Your task to perform on an android device: toggle notification dots Image 0: 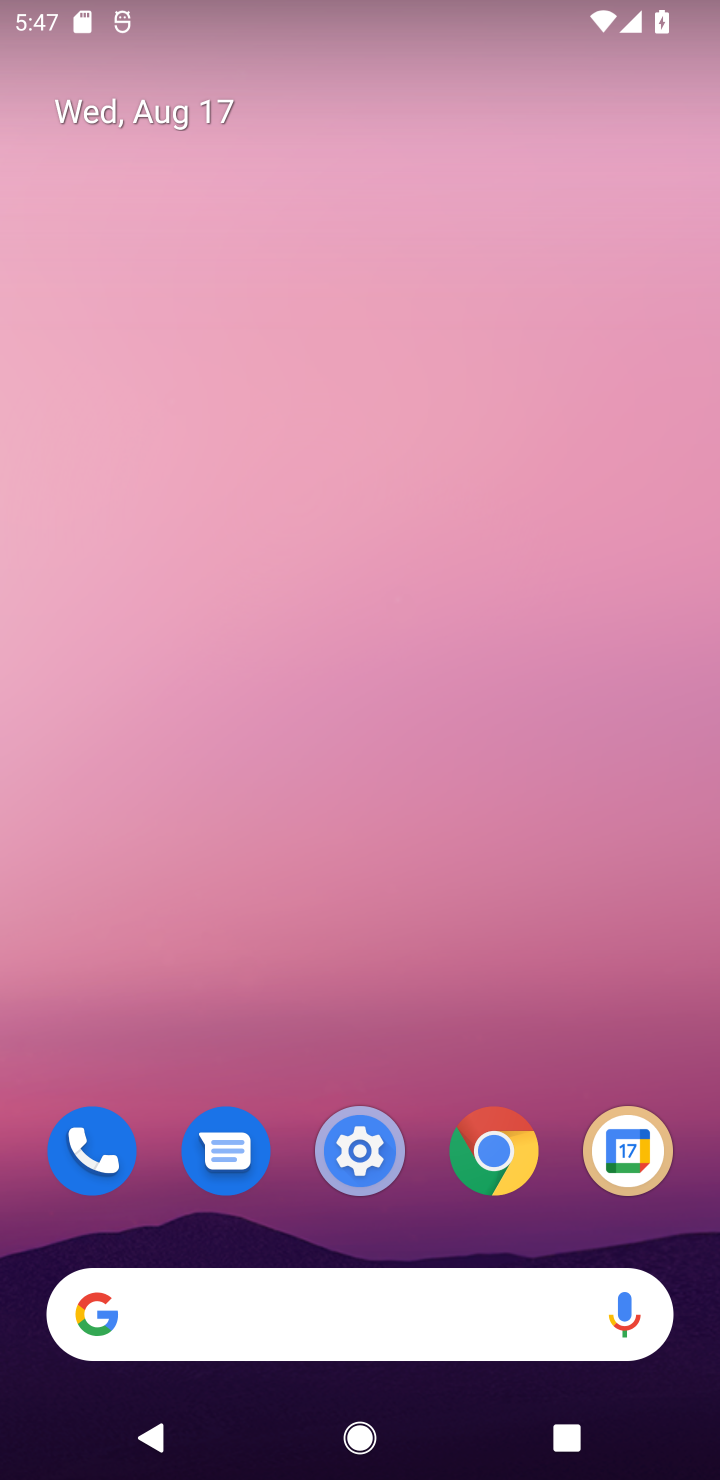
Step 0: click (375, 1154)
Your task to perform on an android device: toggle notification dots Image 1: 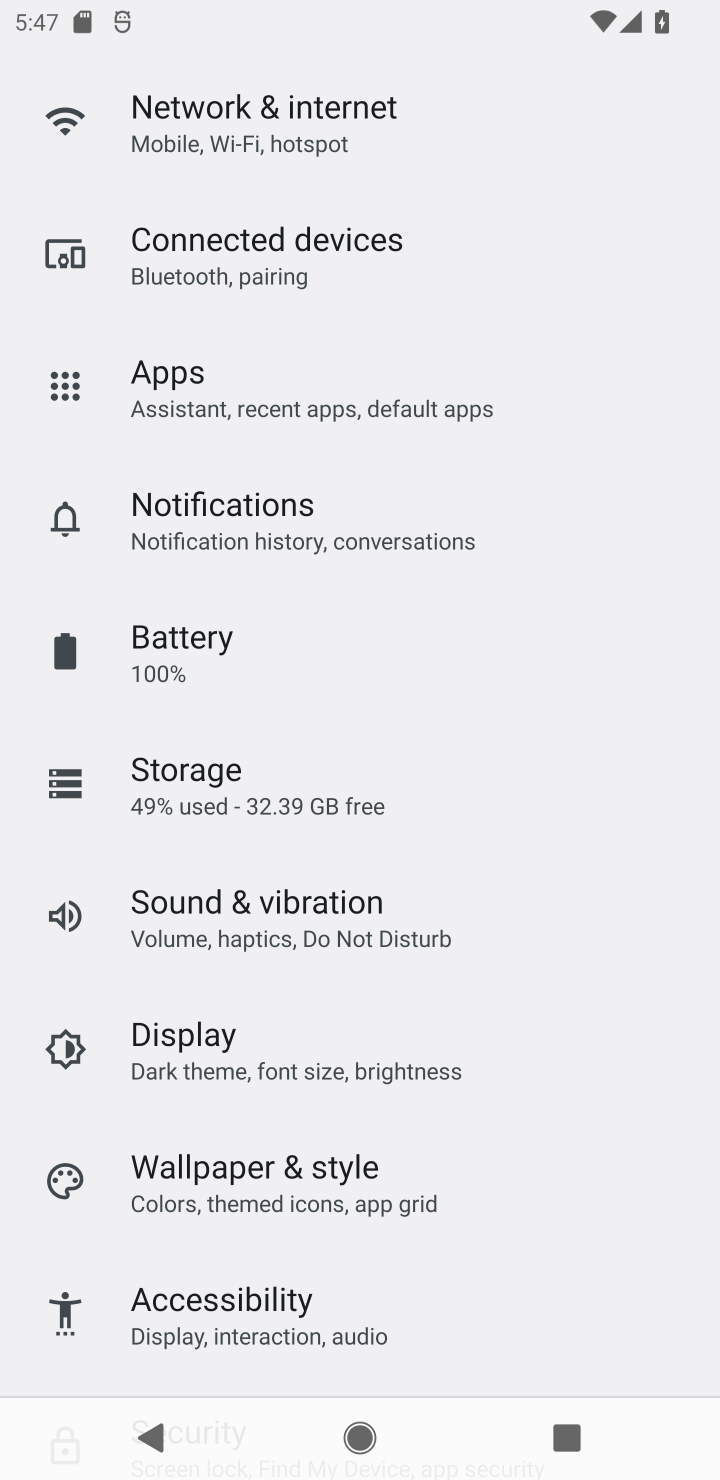
Step 1: click (286, 507)
Your task to perform on an android device: toggle notification dots Image 2: 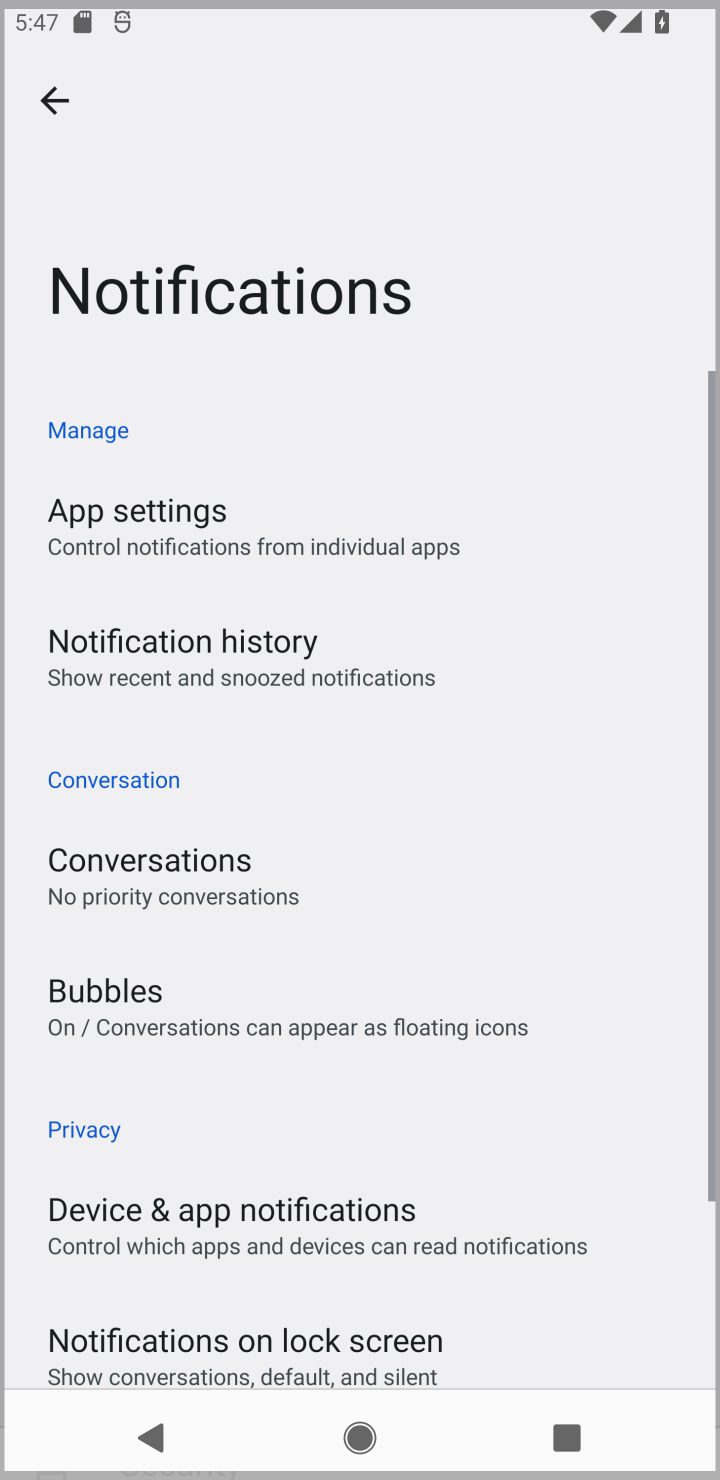
Step 2: task complete